Your task to perform on an android device: toggle location history Image 0: 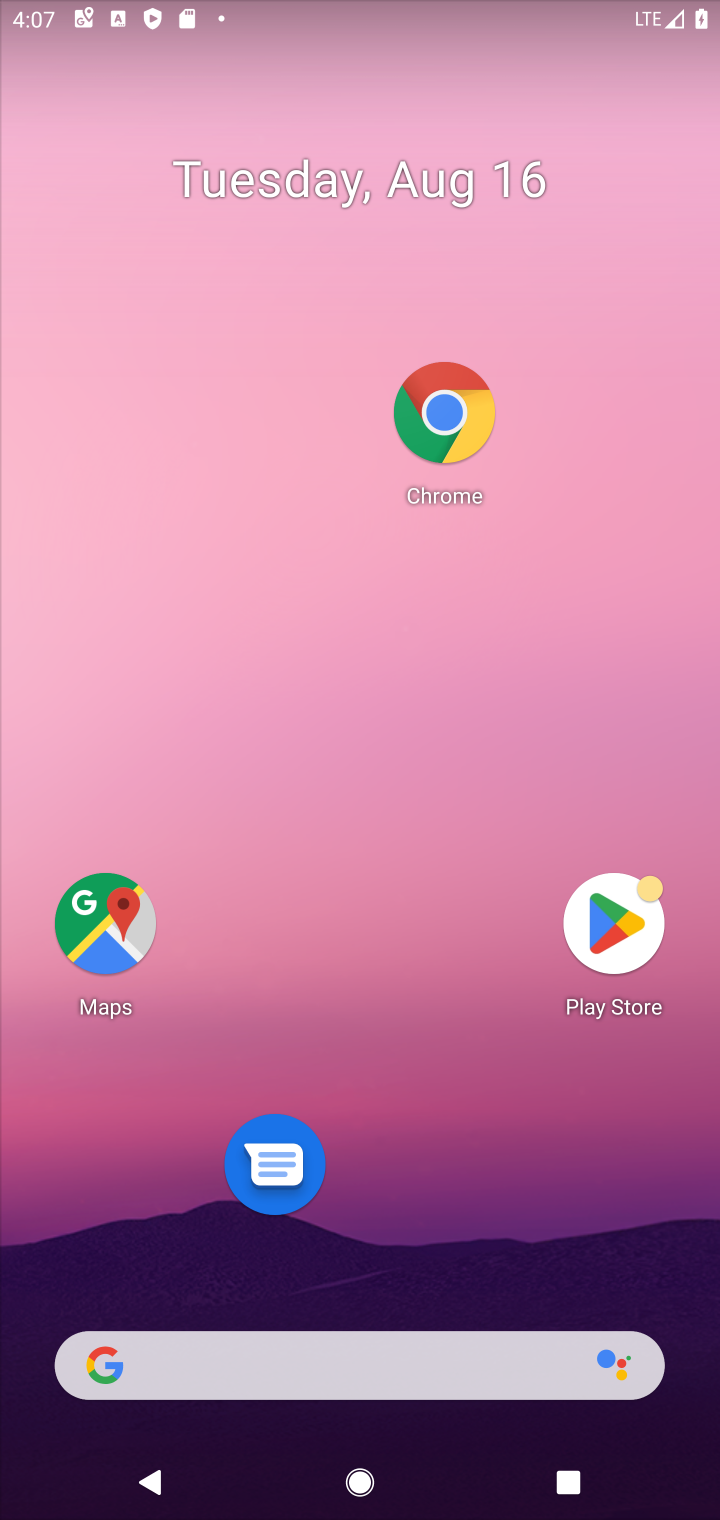
Step 0: click (210, 43)
Your task to perform on an android device: toggle location history Image 1: 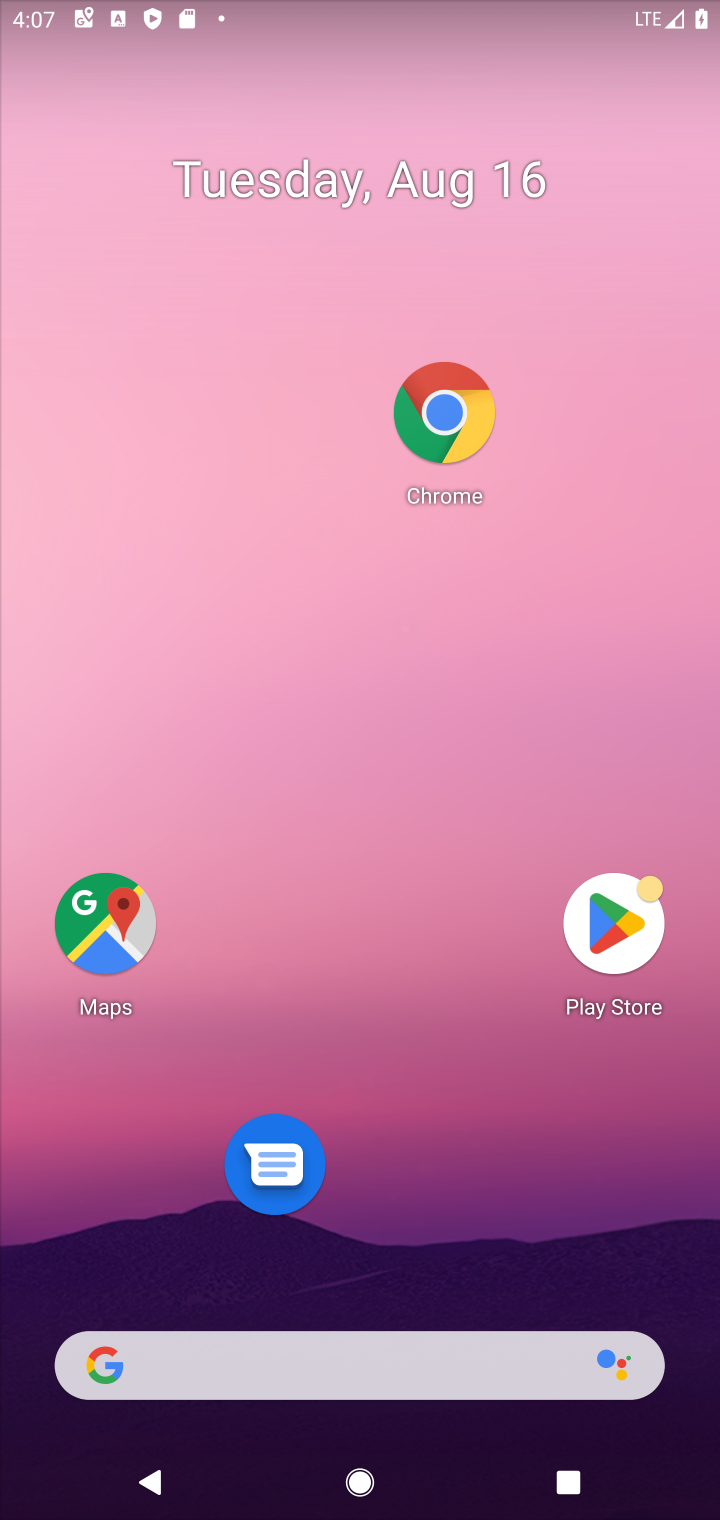
Step 1: click (254, 15)
Your task to perform on an android device: toggle location history Image 2: 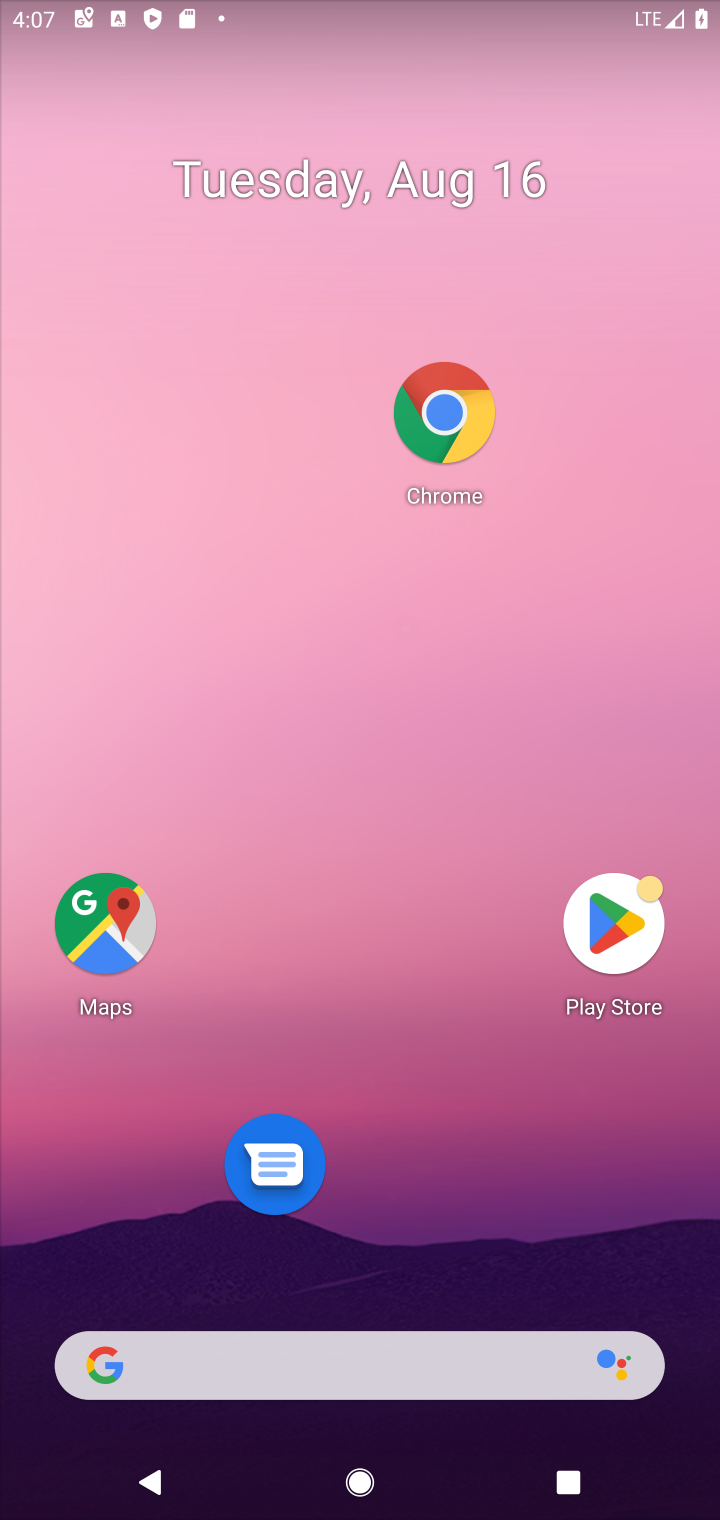
Step 2: drag from (300, 176) to (268, 5)
Your task to perform on an android device: toggle location history Image 3: 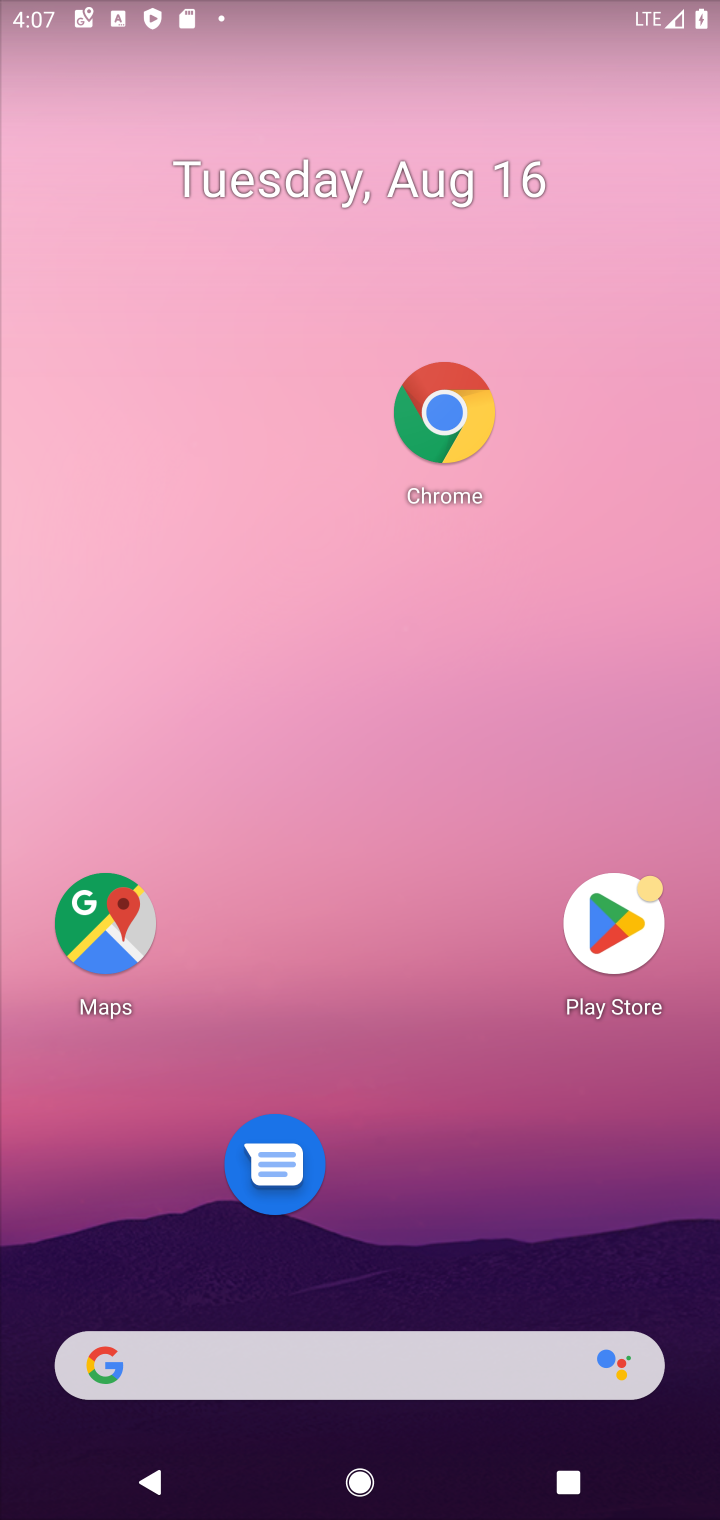
Step 3: drag from (335, 626) to (344, 0)
Your task to perform on an android device: toggle location history Image 4: 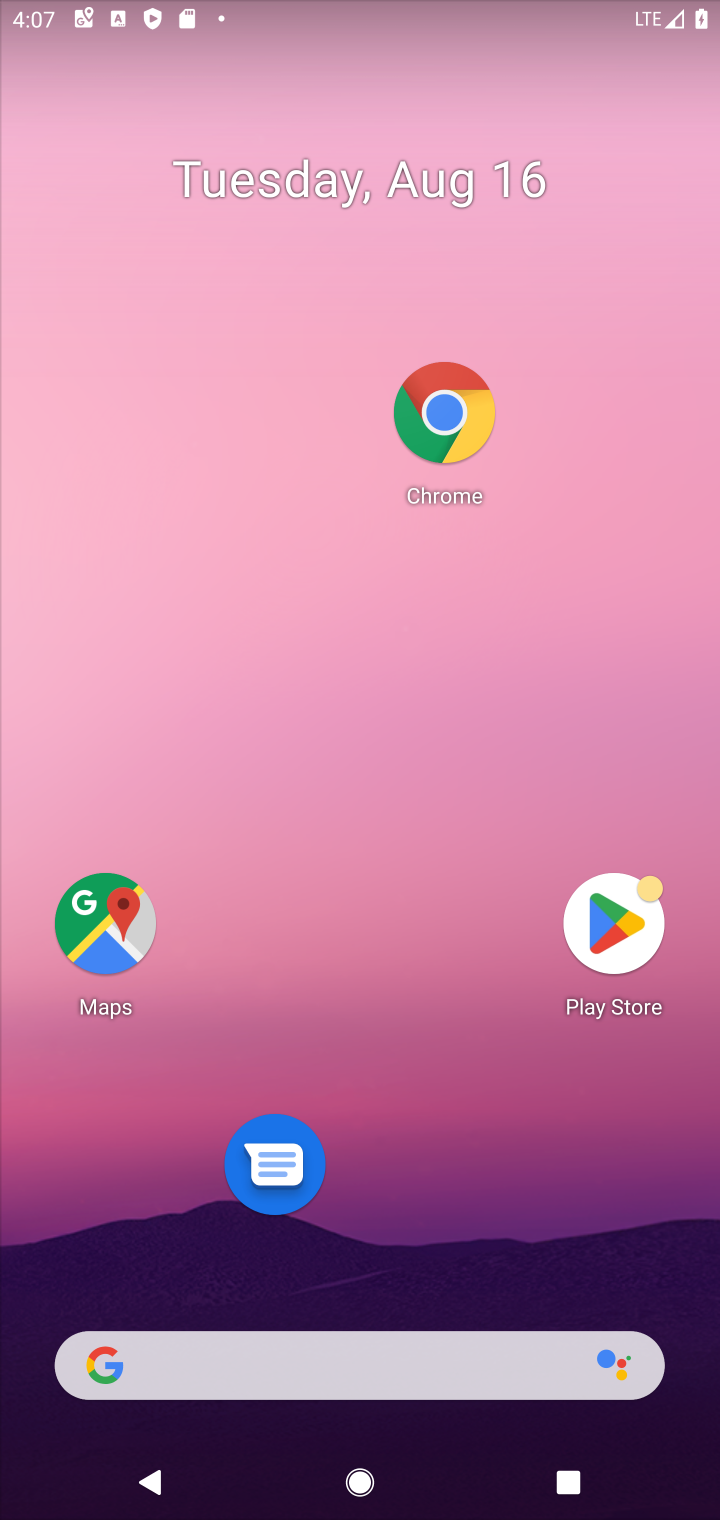
Step 4: drag from (466, 1081) to (267, 30)
Your task to perform on an android device: toggle location history Image 5: 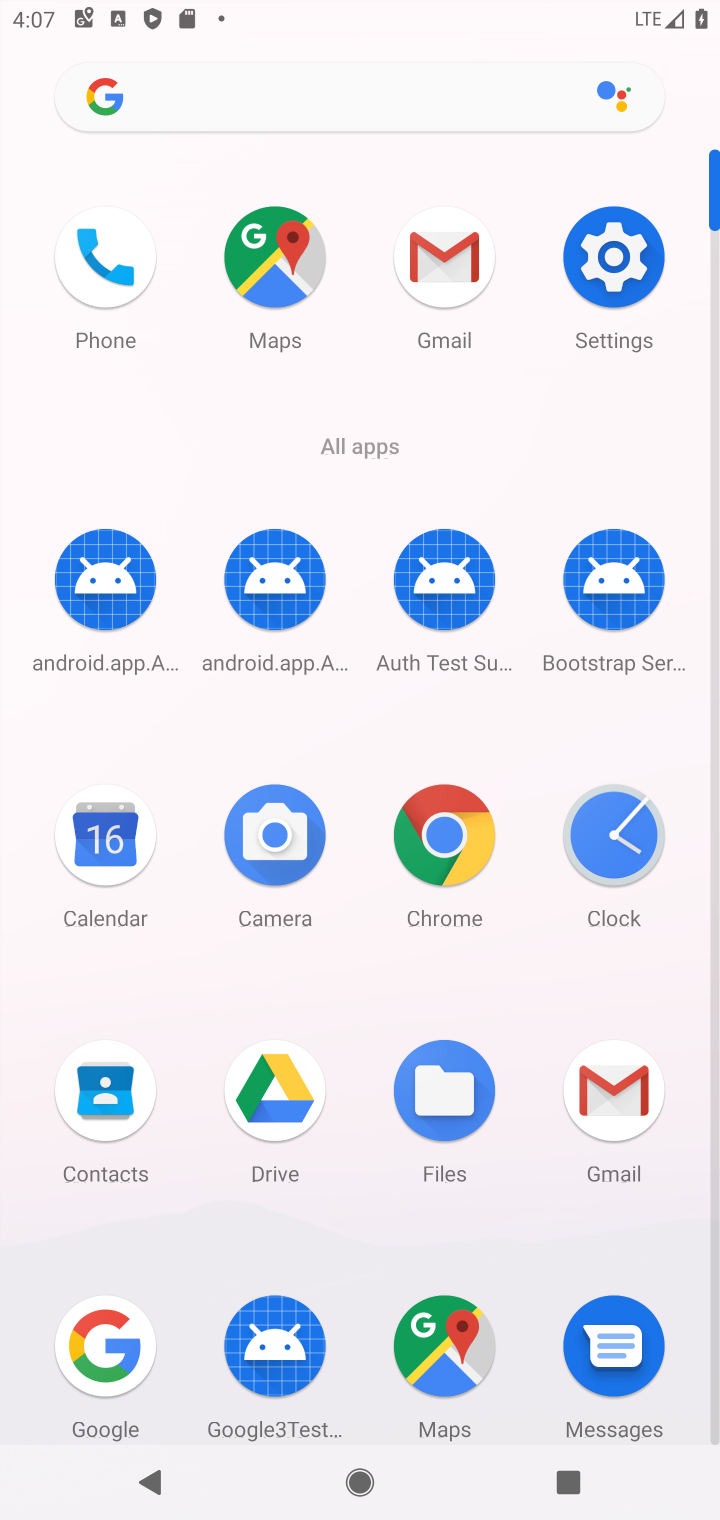
Step 5: click (597, 285)
Your task to perform on an android device: toggle location history Image 6: 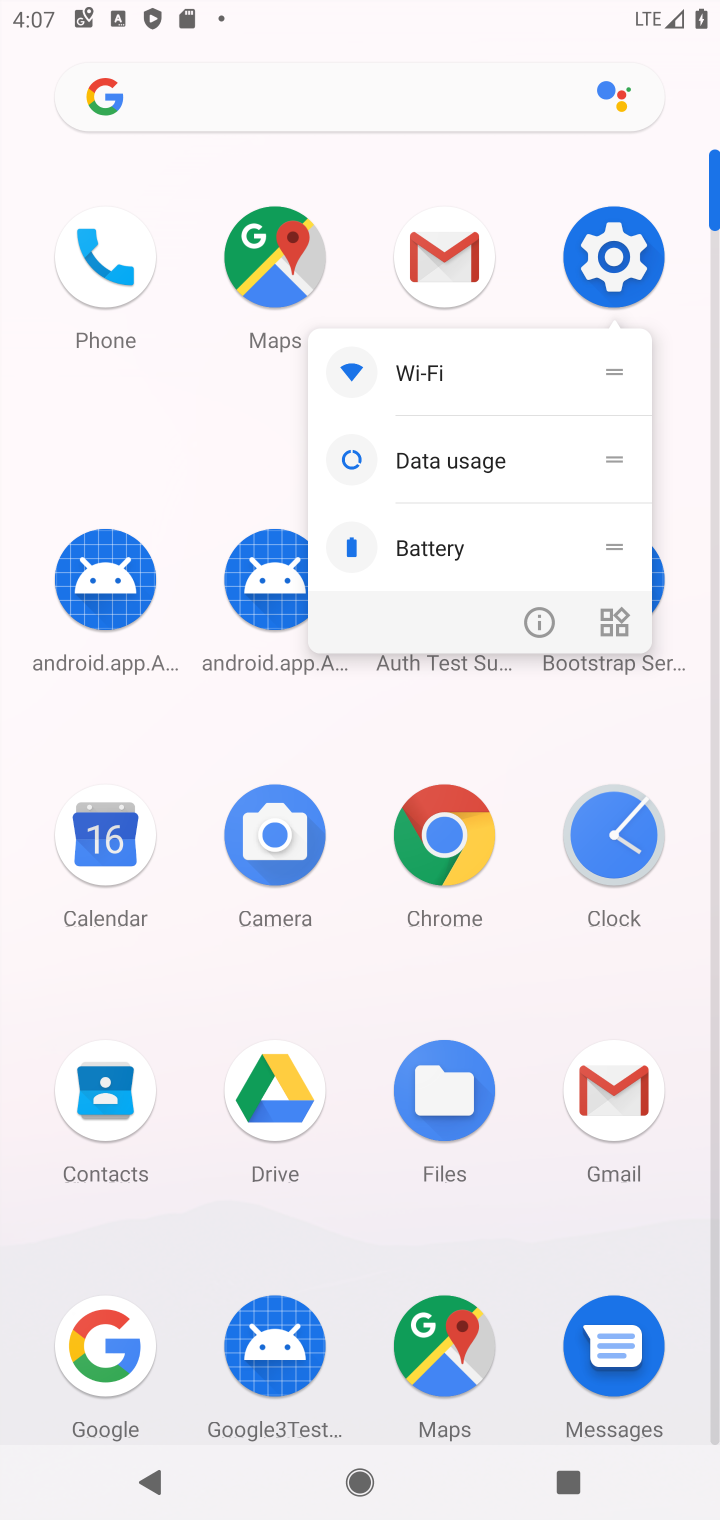
Step 6: click (604, 280)
Your task to perform on an android device: toggle location history Image 7: 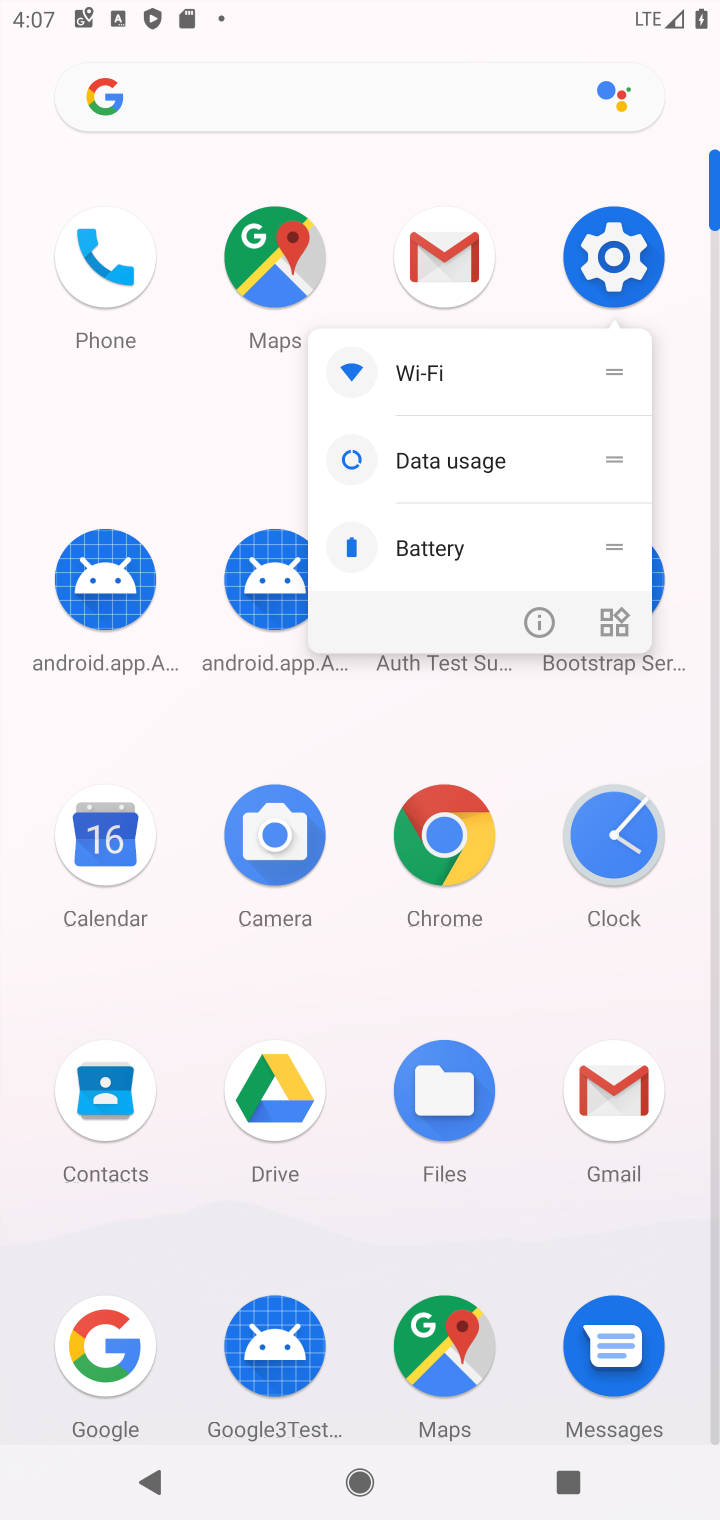
Step 7: click (601, 283)
Your task to perform on an android device: toggle location history Image 8: 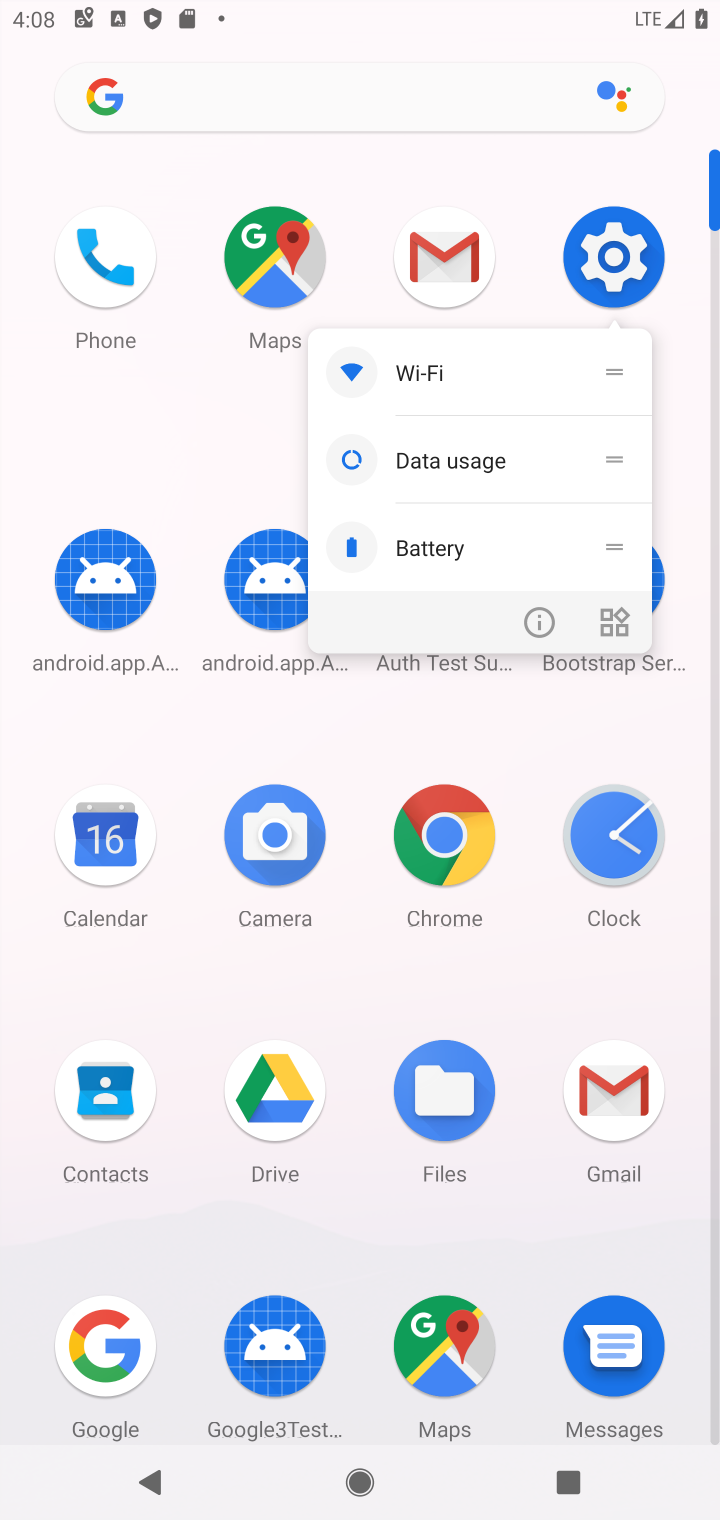
Step 8: click (584, 269)
Your task to perform on an android device: toggle location history Image 9: 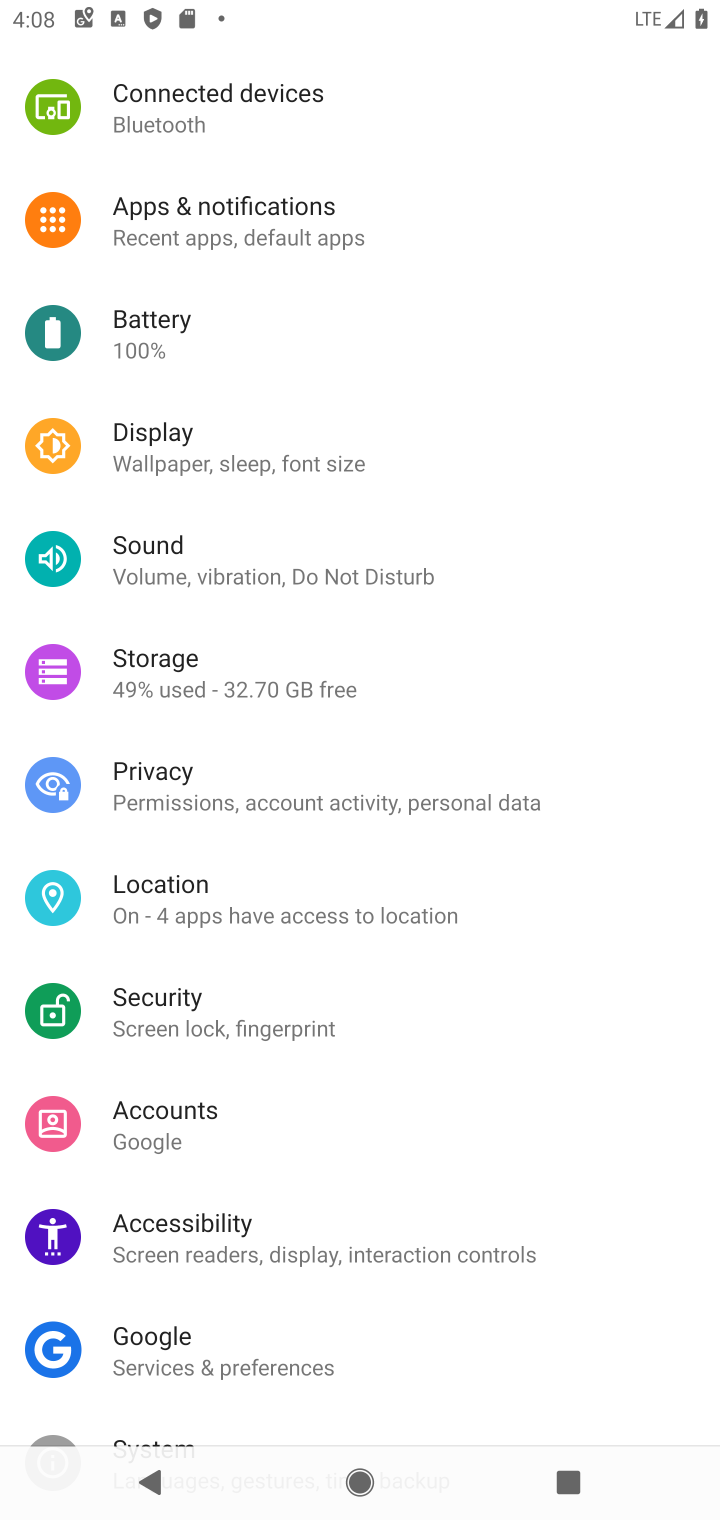
Step 9: click (284, 906)
Your task to perform on an android device: toggle location history Image 10: 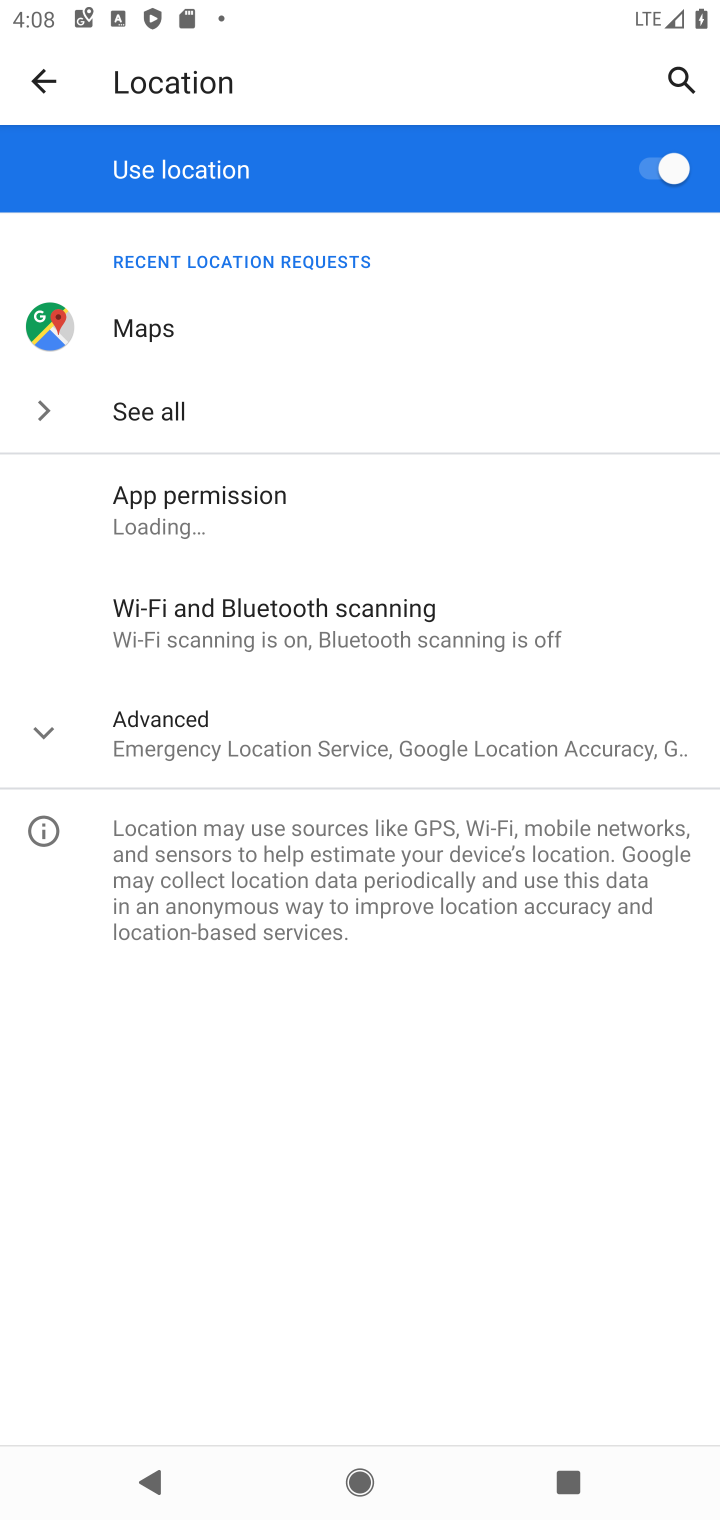
Step 10: click (399, 732)
Your task to perform on an android device: toggle location history Image 11: 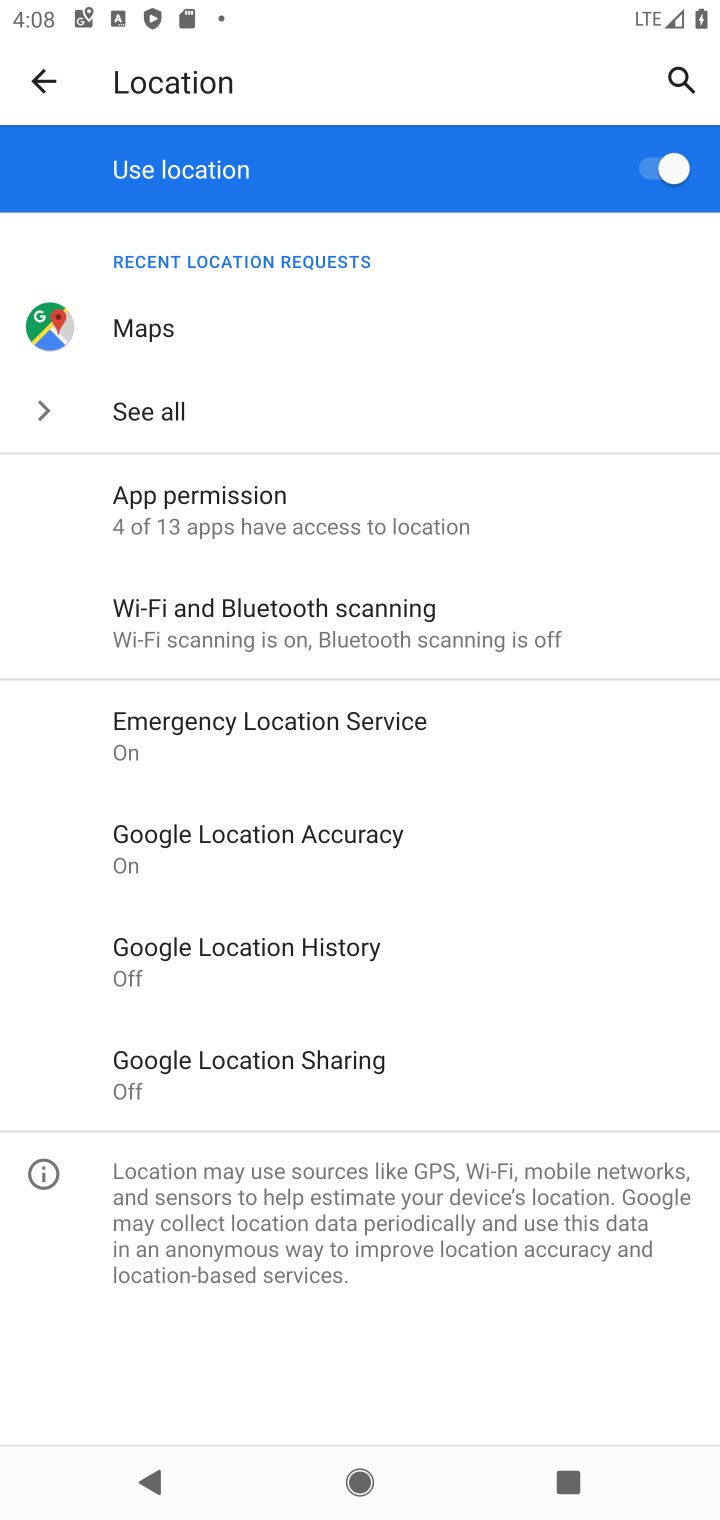
Step 11: click (420, 942)
Your task to perform on an android device: toggle location history Image 12: 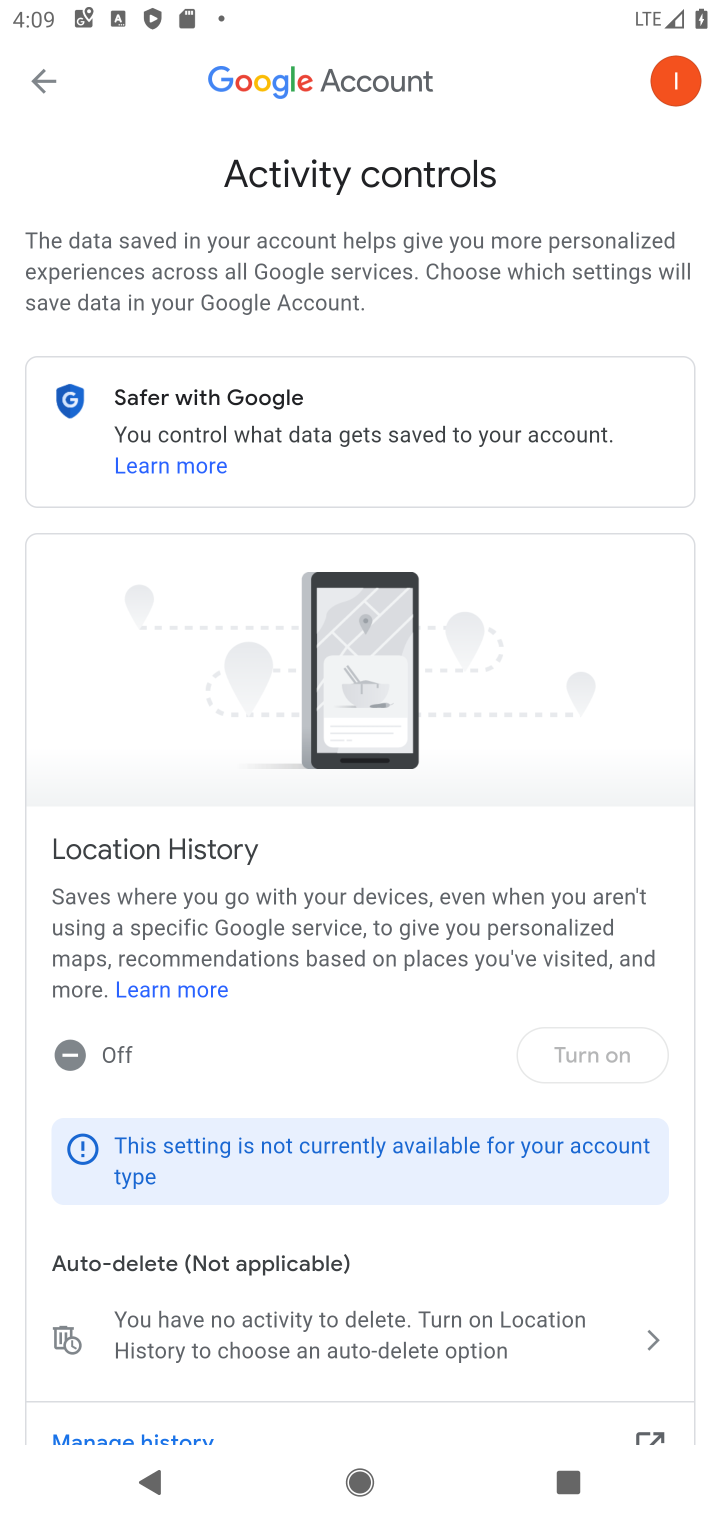
Step 12: task complete